Your task to perform on an android device: turn on showing notifications on the lock screen Image 0: 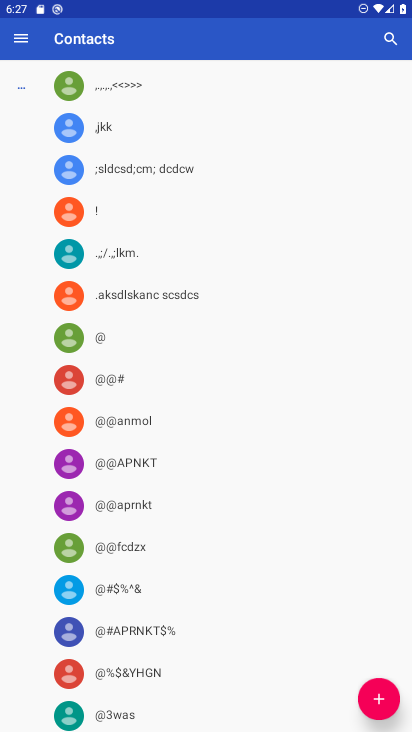
Step 0: press home button
Your task to perform on an android device: turn on showing notifications on the lock screen Image 1: 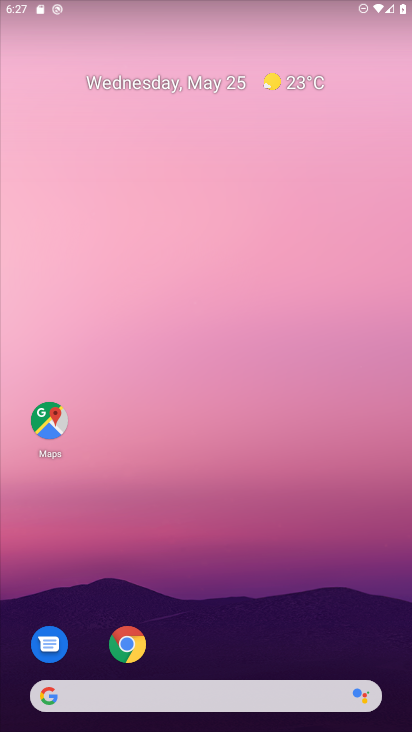
Step 1: drag from (374, 663) to (300, 67)
Your task to perform on an android device: turn on showing notifications on the lock screen Image 2: 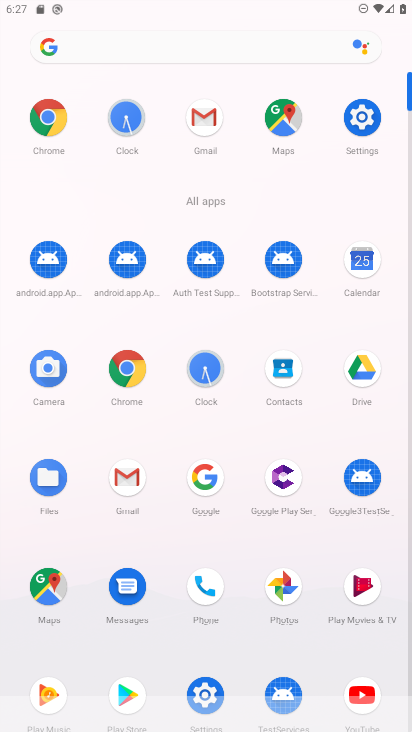
Step 2: click (360, 121)
Your task to perform on an android device: turn on showing notifications on the lock screen Image 3: 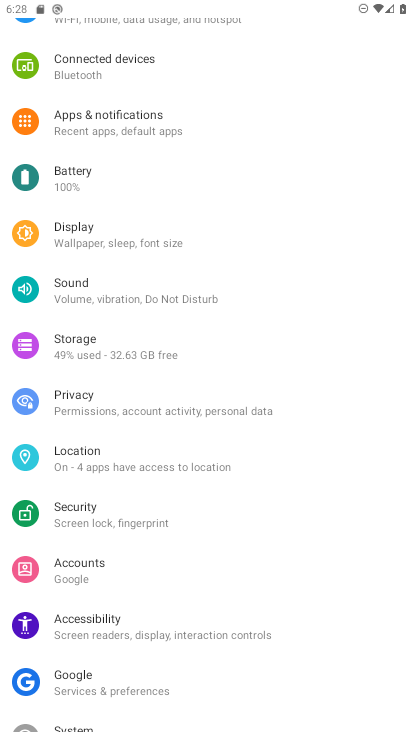
Step 3: click (90, 109)
Your task to perform on an android device: turn on showing notifications on the lock screen Image 4: 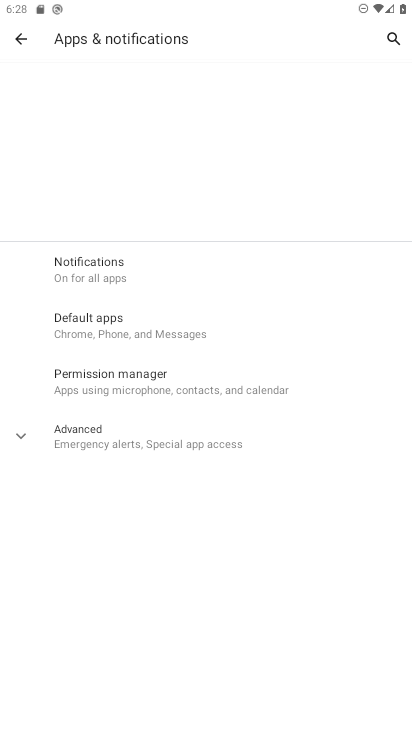
Step 4: click (80, 421)
Your task to perform on an android device: turn on showing notifications on the lock screen Image 5: 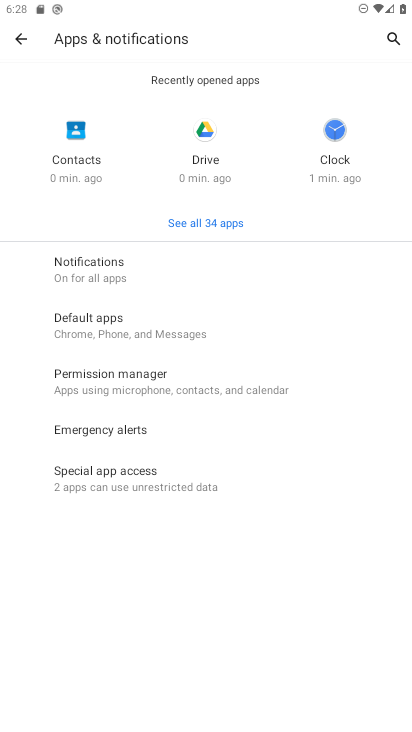
Step 5: click (106, 279)
Your task to perform on an android device: turn on showing notifications on the lock screen Image 6: 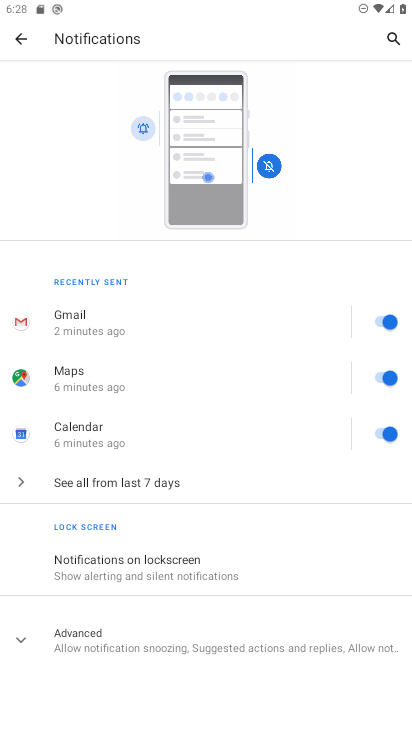
Step 6: click (168, 569)
Your task to perform on an android device: turn on showing notifications on the lock screen Image 7: 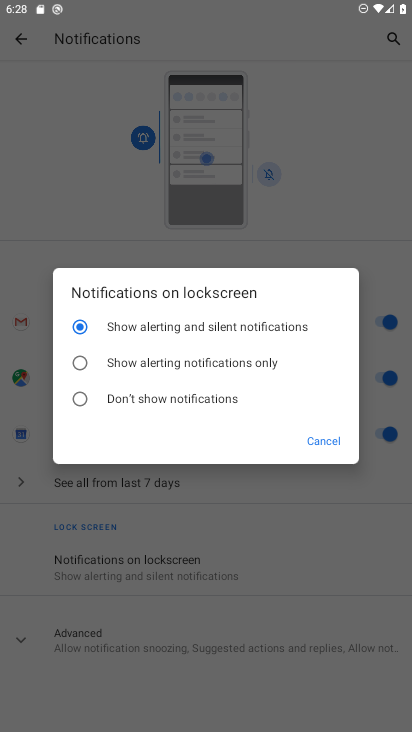
Step 7: click (64, 316)
Your task to perform on an android device: turn on showing notifications on the lock screen Image 8: 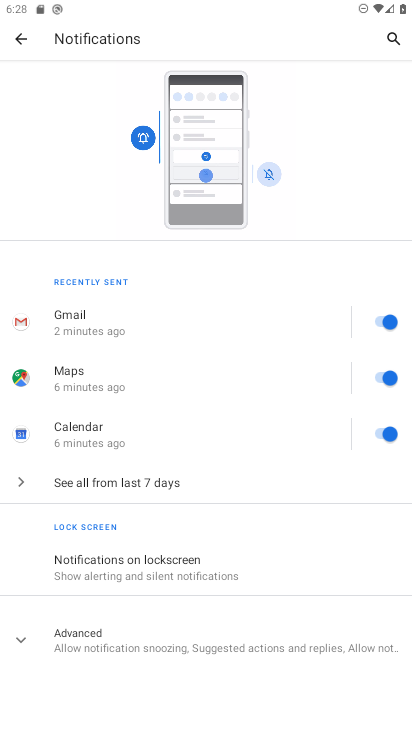
Step 8: task complete